Your task to perform on an android device: Check my email Image 0: 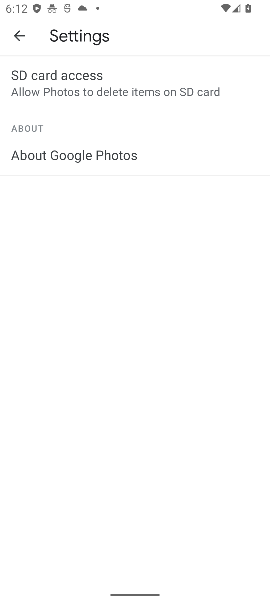
Step 0: press home button
Your task to perform on an android device: Check my email Image 1: 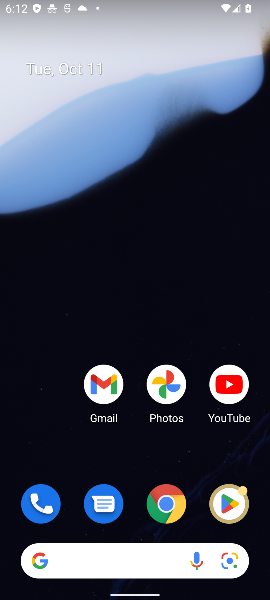
Step 1: drag from (145, 454) to (206, 70)
Your task to perform on an android device: Check my email Image 2: 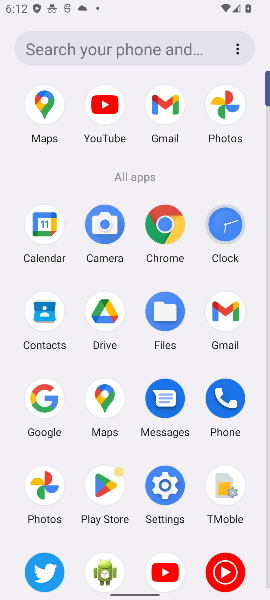
Step 2: click (165, 102)
Your task to perform on an android device: Check my email Image 3: 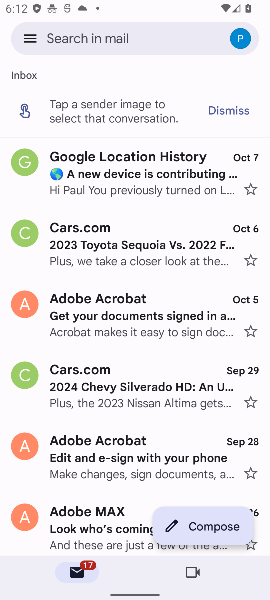
Step 3: task complete